Your task to perform on an android device: change text size in settings app Image 0: 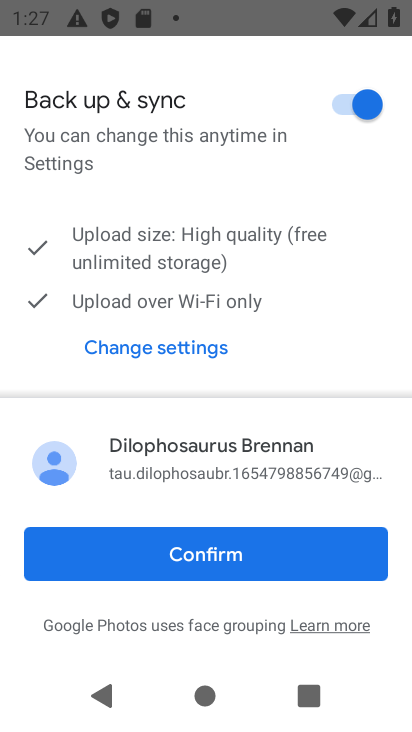
Step 0: press home button
Your task to perform on an android device: change text size in settings app Image 1: 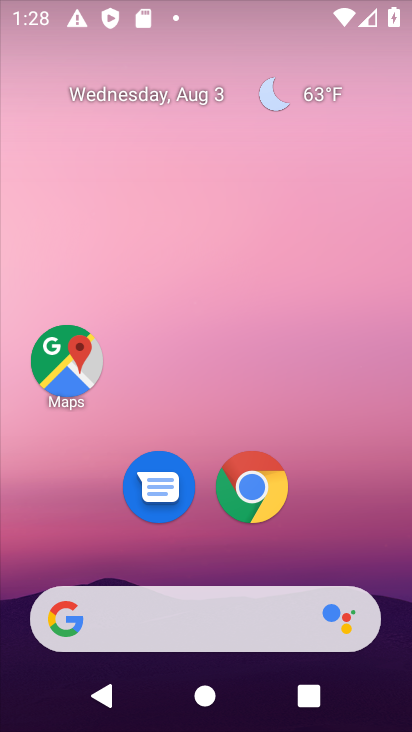
Step 1: drag from (279, 550) to (285, 66)
Your task to perform on an android device: change text size in settings app Image 2: 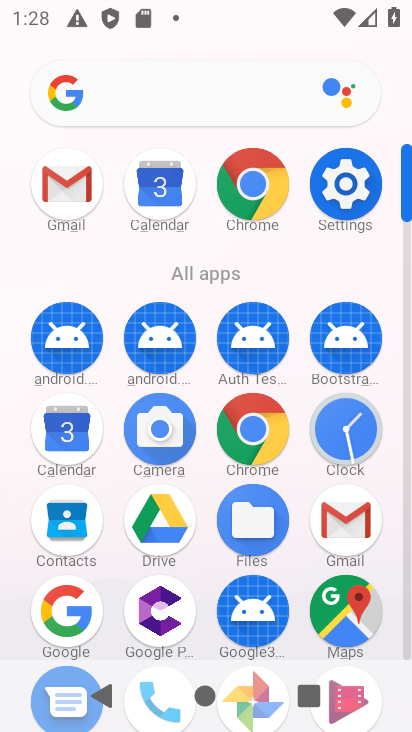
Step 2: click (339, 173)
Your task to perform on an android device: change text size in settings app Image 3: 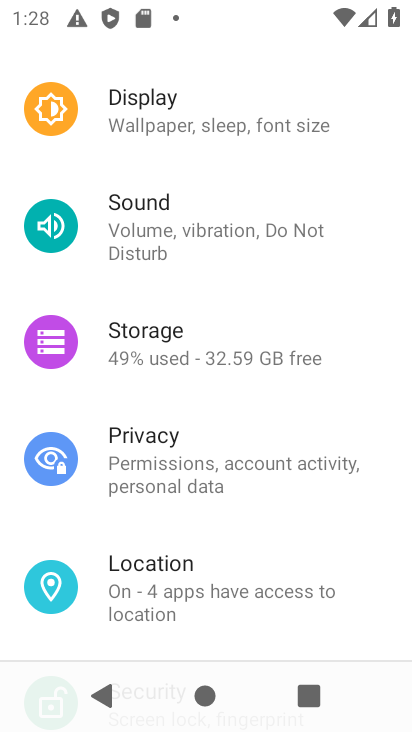
Step 3: click (176, 117)
Your task to perform on an android device: change text size in settings app Image 4: 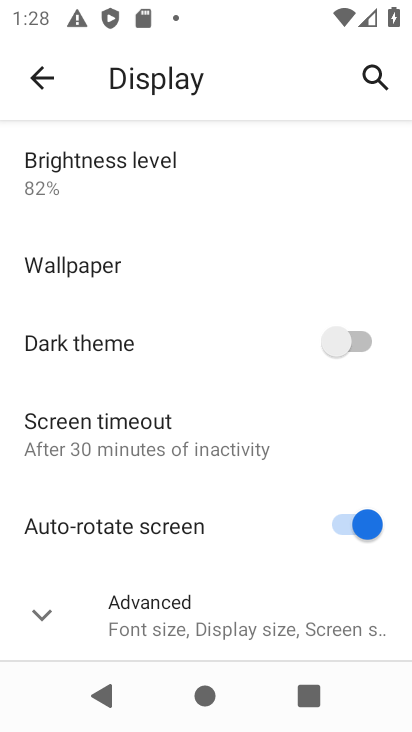
Step 4: click (194, 624)
Your task to perform on an android device: change text size in settings app Image 5: 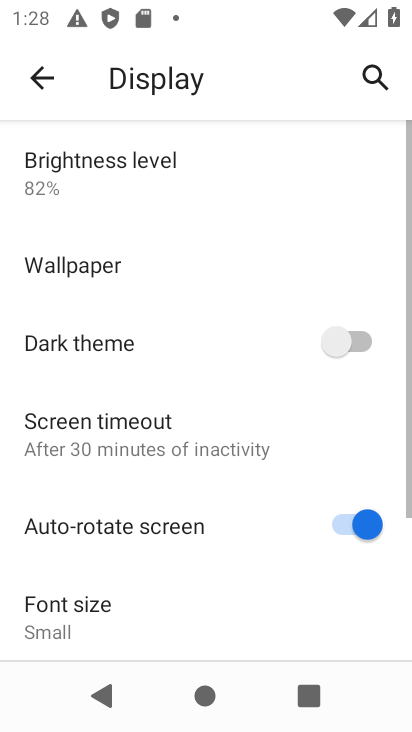
Step 5: drag from (248, 569) to (286, 230)
Your task to perform on an android device: change text size in settings app Image 6: 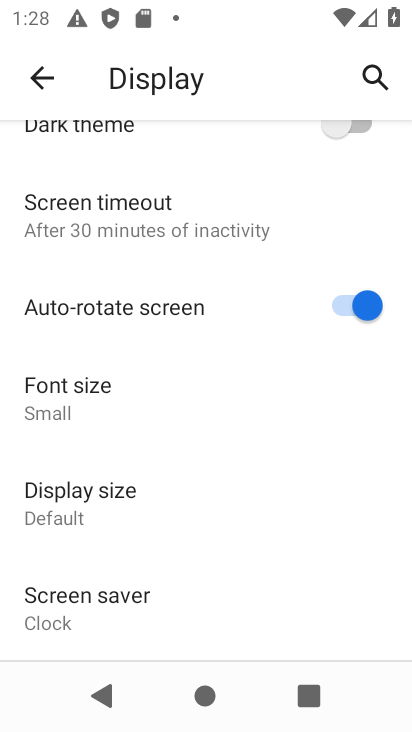
Step 6: click (36, 405)
Your task to perform on an android device: change text size in settings app Image 7: 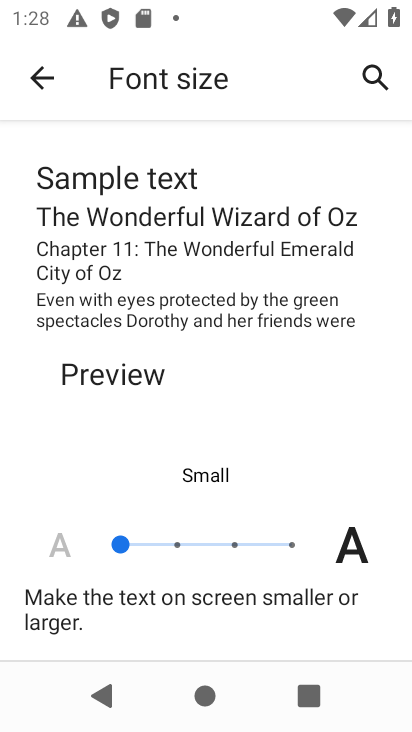
Step 7: click (181, 539)
Your task to perform on an android device: change text size in settings app Image 8: 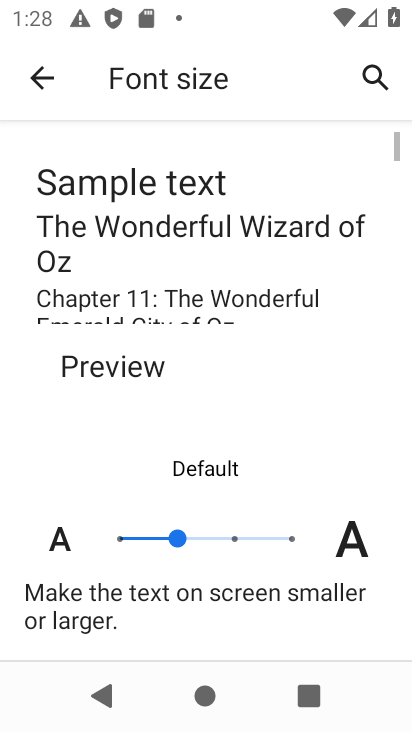
Step 8: task complete